Your task to perform on an android device: turn on location history Image 0: 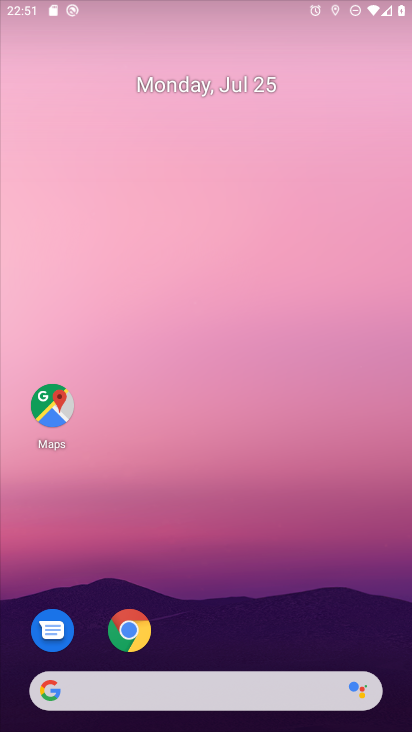
Step 0: drag from (268, 584) to (348, 156)
Your task to perform on an android device: turn on location history Image 1: 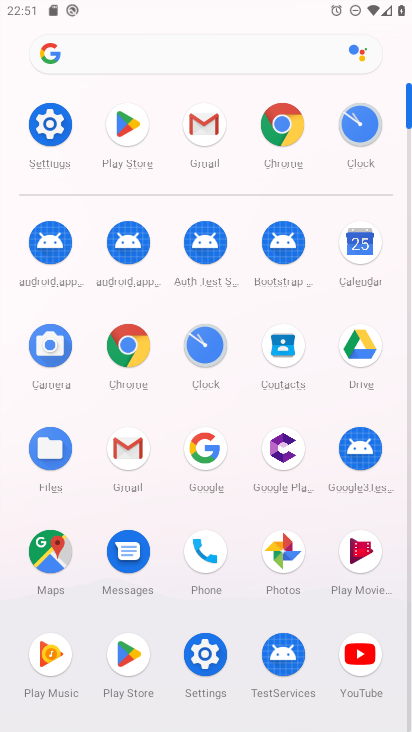
Step 1: click (56, 122)
Your task to perform on an android device: turn on location history Image 2: 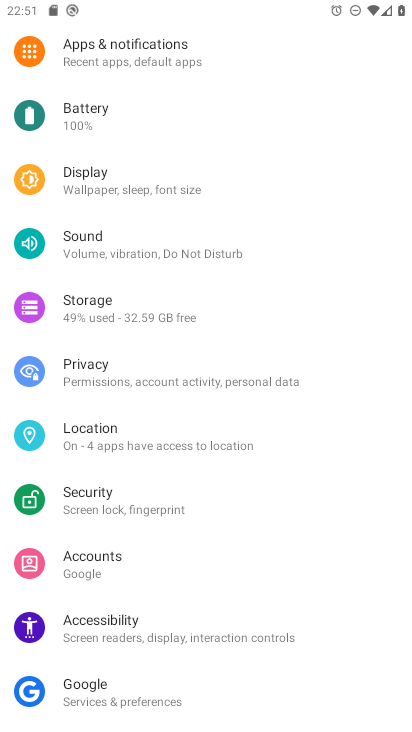
Step 2: drag from (195, 138) to (203, 321)
Your task to perform on an android device: turn on location history Image 3: 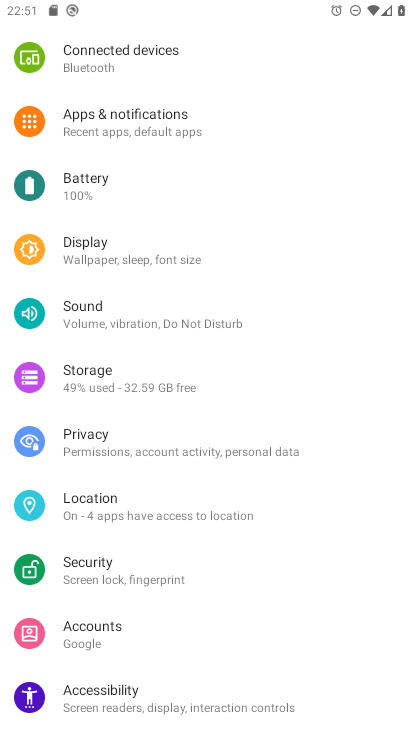
Step 3: click (110, 506)
Your task to perform on an android device: turn on location history Image 4: 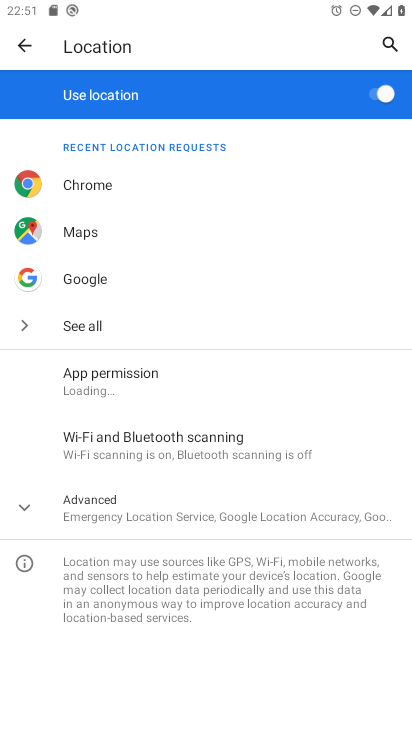
Step 4: click (170, 508)
Your task to perform on an android device: turn on location history Image 5: 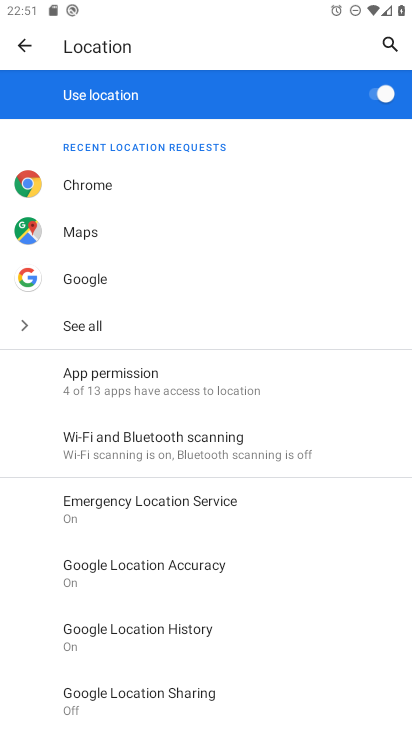
Step 5: click (204, 631)
Your task to perform on an android device: turn on location history Image 6: 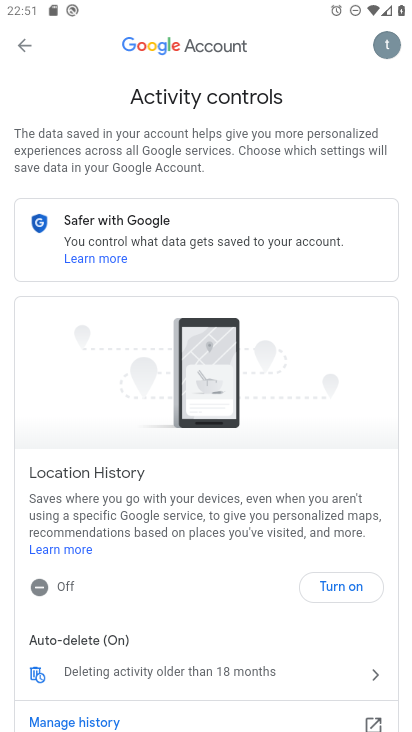
Step 6: click (331, 594)
Your task to perform on an android device: turn on location history Image 7: 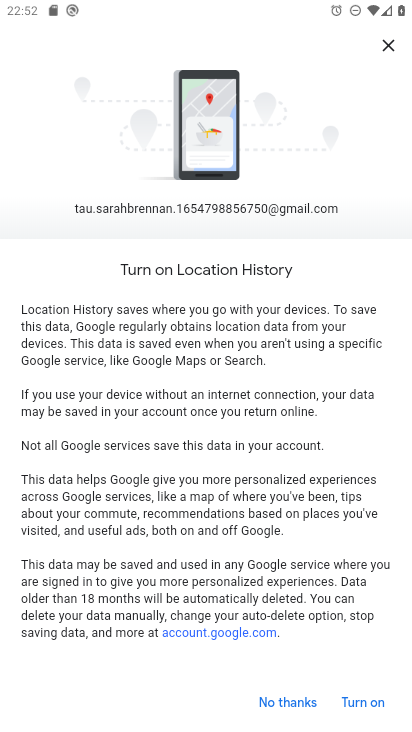
Step 7: click (360, 711)
Your task to perform on an android device: turn on location history Image 8: 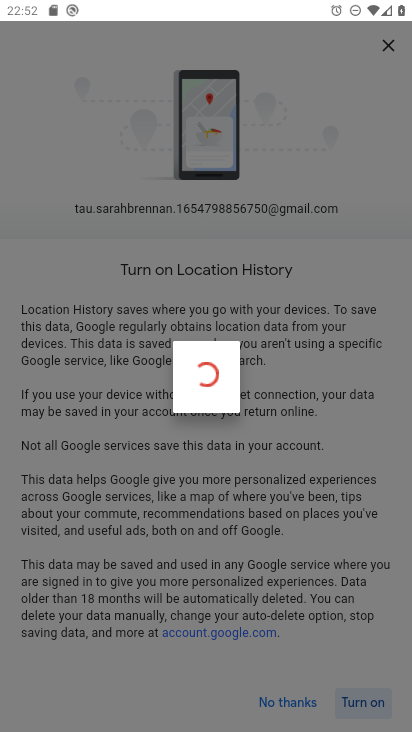
Step 8: click (378, 695)
Your task to perform on an android device: turn on location history Image 9: 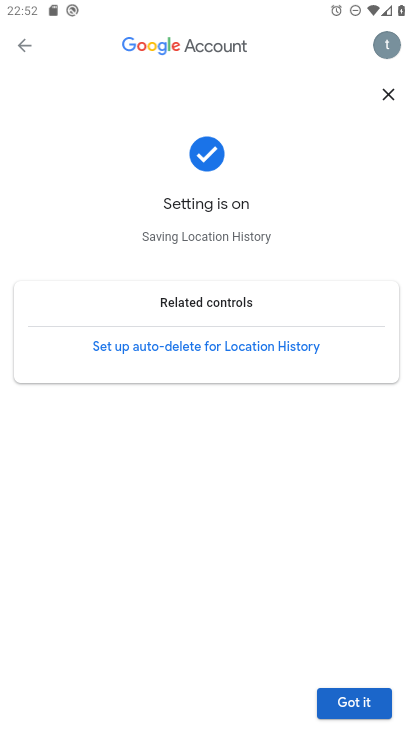
Step 9: task complete